Your task to perform on an android device: open app "LinkedIn" Image 0: 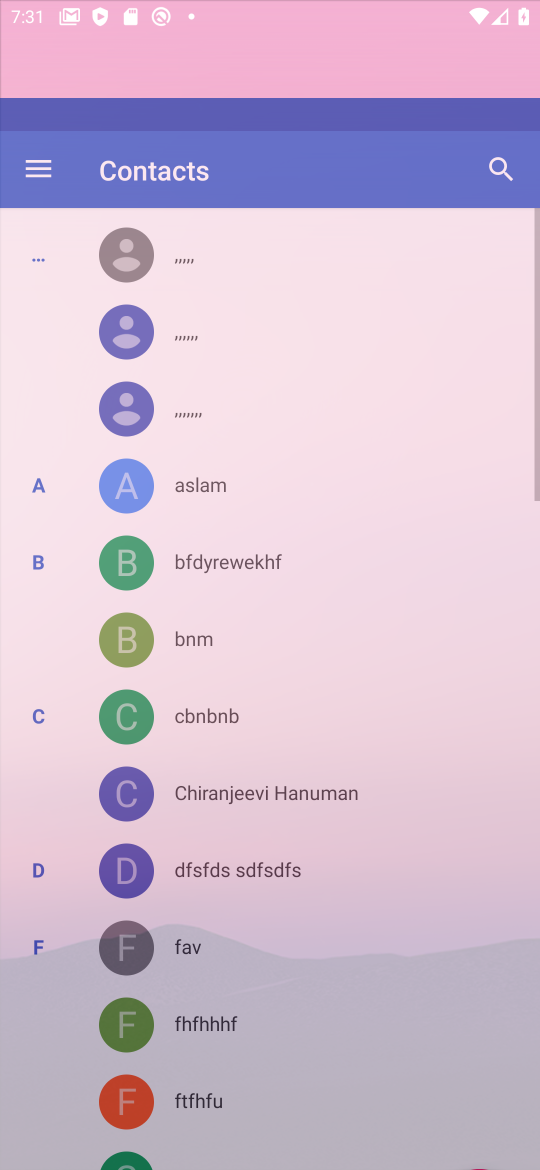
Step 0: press home button
Your task to perform on an android device: open app "LinkedIn" Image 1: 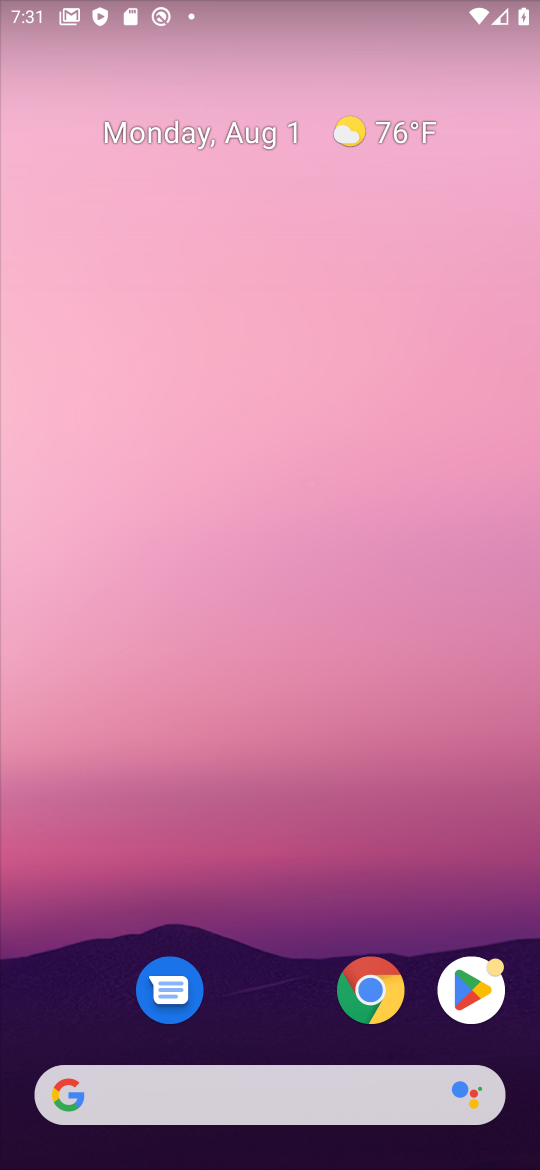
Step 1: click (447, 983)
Your task to perform on an android device: open app "LinkedIn" Image 2: 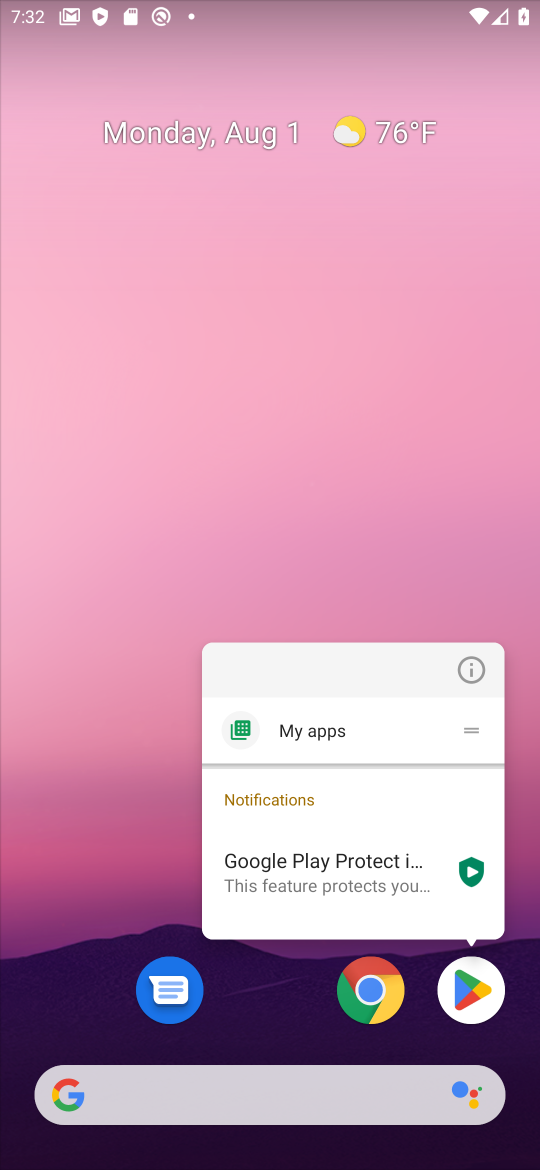
Step 2: click (458, 995)
Your task to perform on an android device: open app "LinkedIn" Image 3: 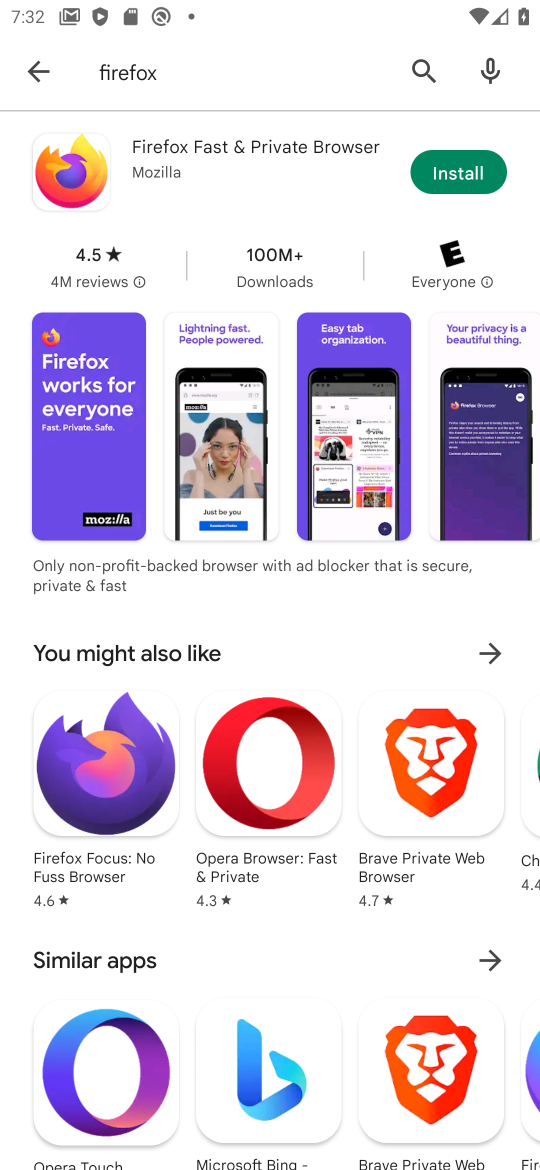
Step 3: click (418, 64)
Your task to perform on an android device: open app "LinkedIn" Image 4: 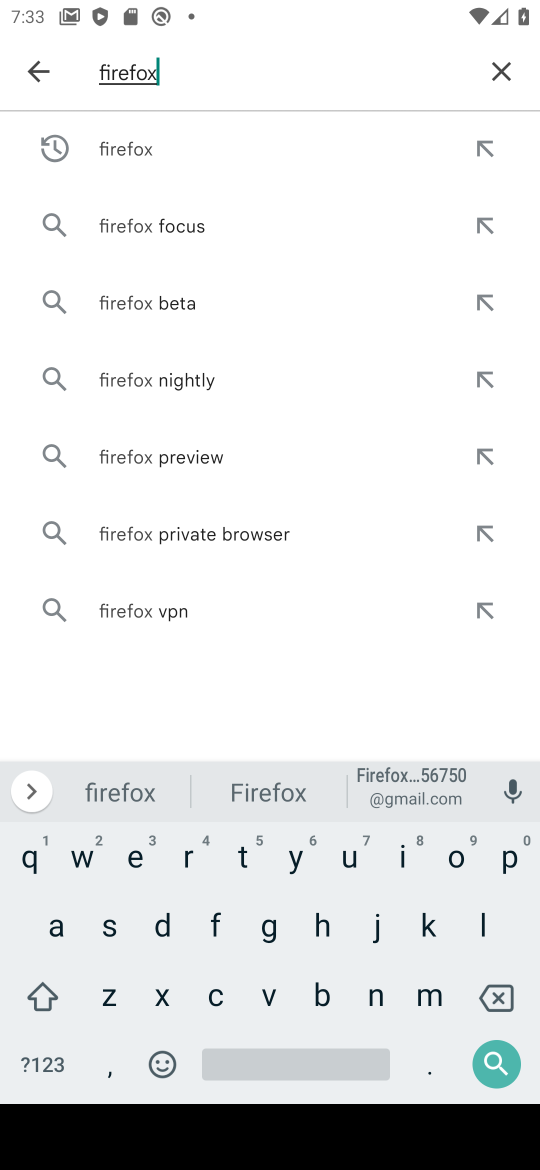
Step 4: click (496, 76)
Your task to perform on an android device: open app "LinkedIn" Image 5: 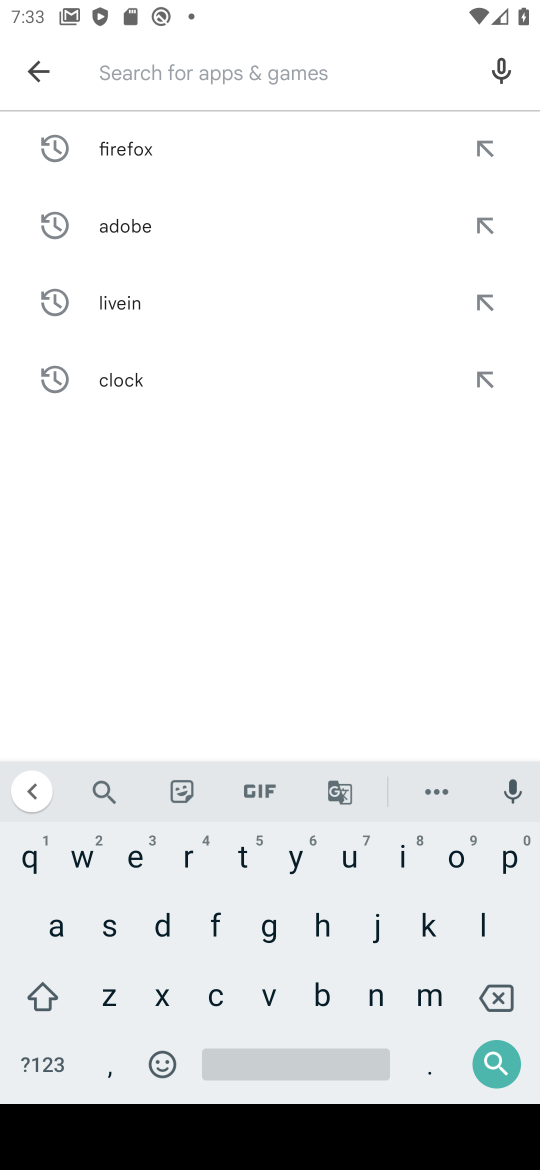
Step 5: click (487, 924)
Your task to perform on an android device: open app "LinkedIn" Image 6: 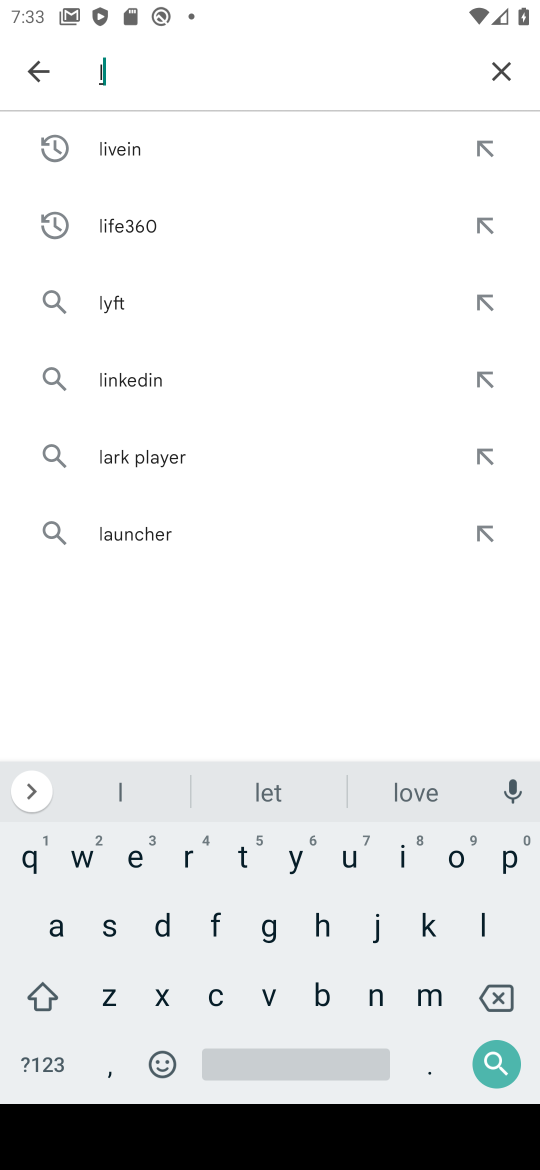
Step 6: click (400, 859)
Your task to perform on an android device: open app "LinkedIn" Image 7: 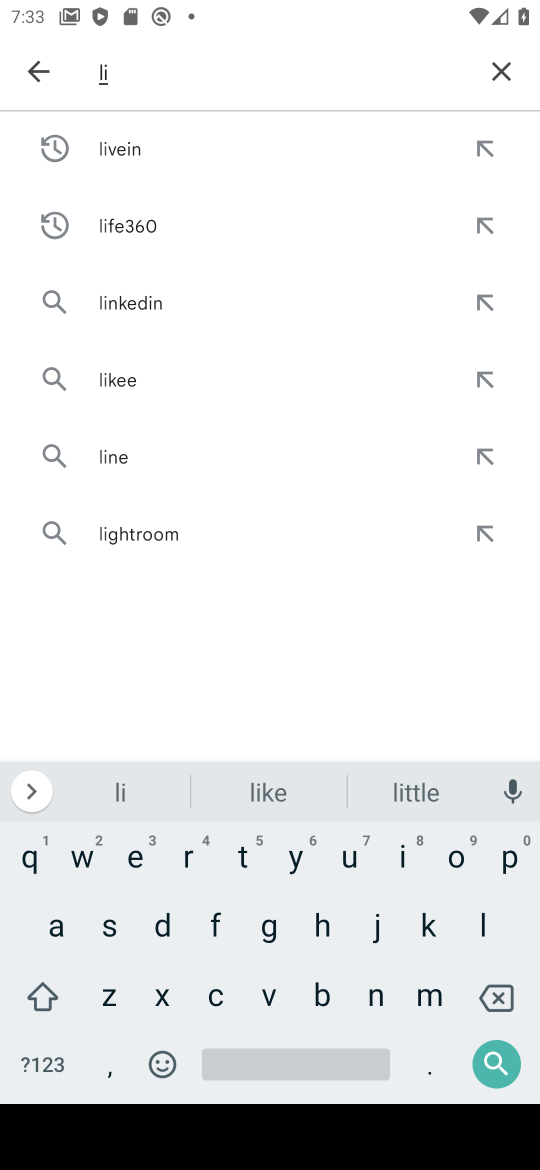
Step 7: click (370, 998)
Your task to perform on an android device: open app "LinkedIn" Image 8: 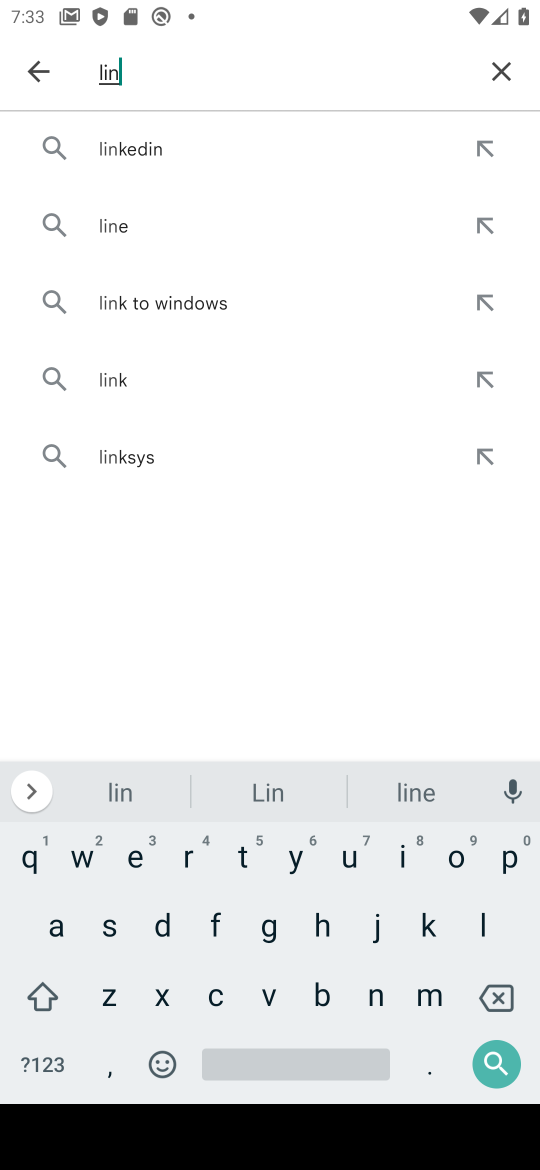
Step 8: click (426, 935)
Your task to perform on an android device: open app "LinkedIn" Image 9: 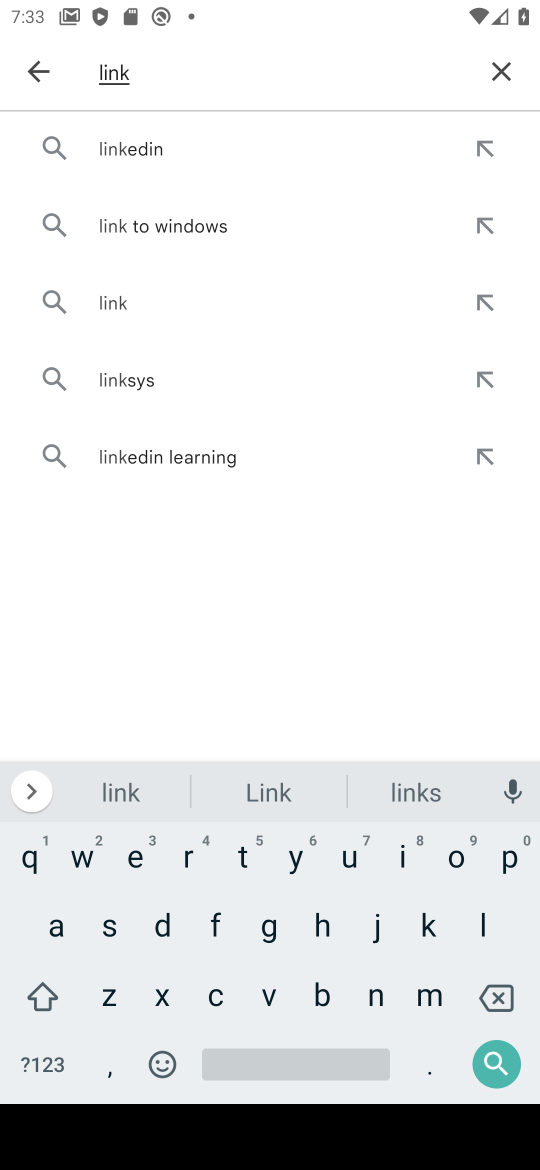
Step 9: click (149, 156)
Your task to perform on an android device: open app "LinkedIn" Image 10: 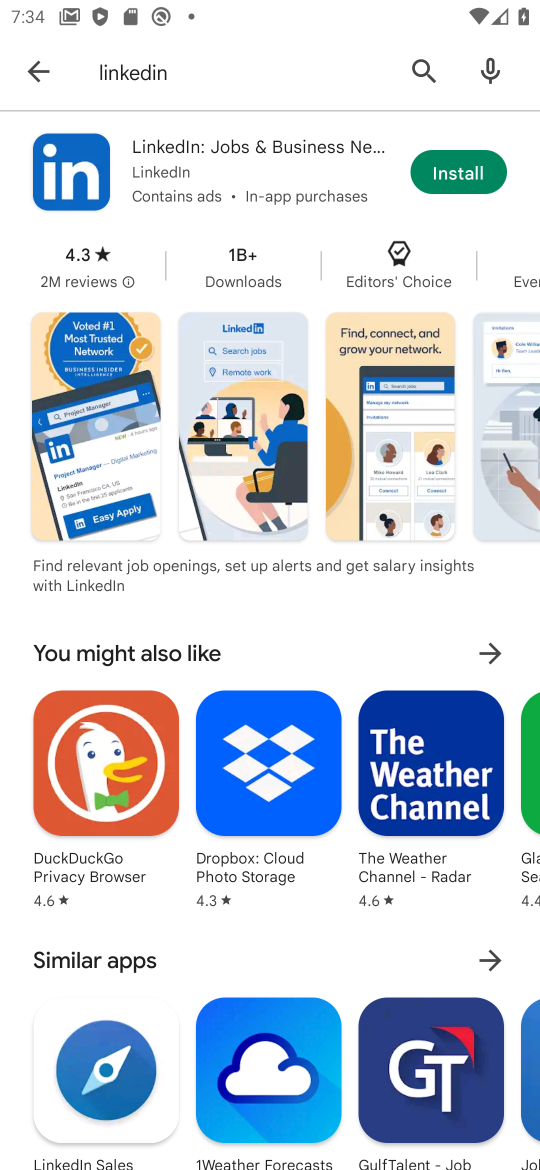
Step 10: task complete